Your task to perform on an android device: Open accessibility settings Image 0: 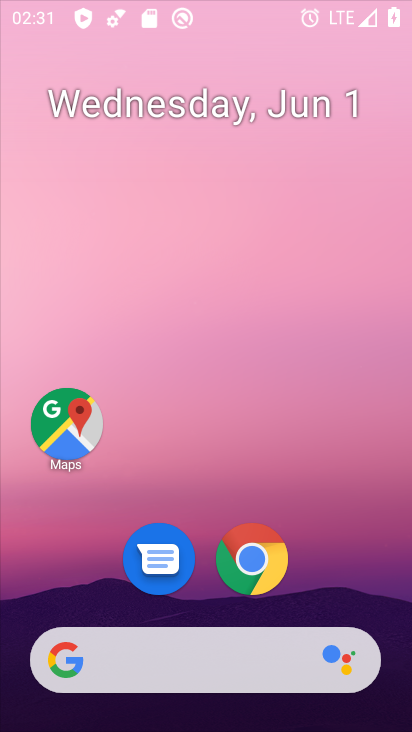
Step 0: press home button
Your task to perform on an android device: Open accessibility settings Image 1: 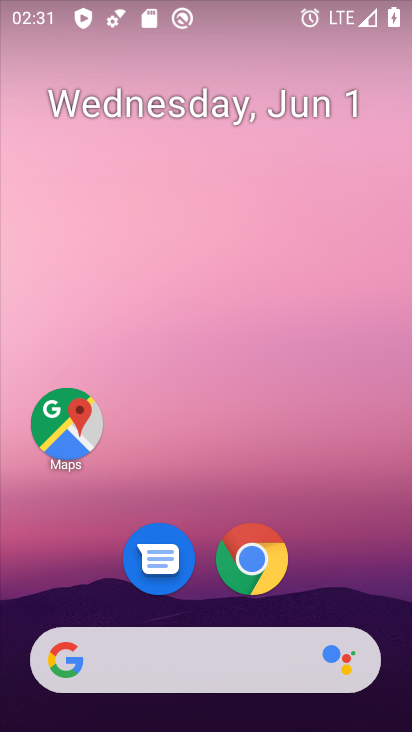
Step 1: drag from (315, 604) to (314, 188)
Your task to perform on an android device: Open accessibility settings Image 2: 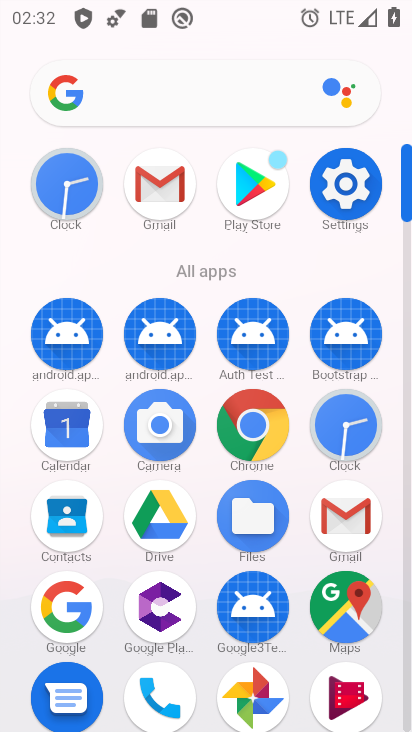
Step 2: click (348, 186)
Your task to perform on an android device: Open accessibility settings Image 3: 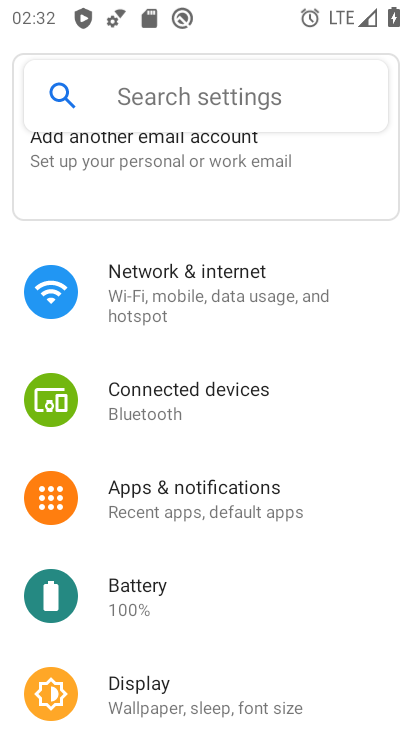
Step 3: drag from (228, 560) to (242, 175)
Your task to perform on an android device: Open accessibility settings Image 4: 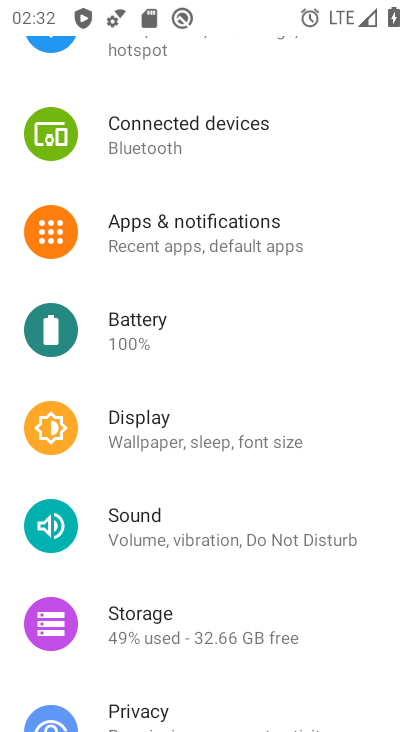
Step 4: drag from (275, 677) to (290, 197)
Your task to perform on an android device: Open accessibility settings Image 5: 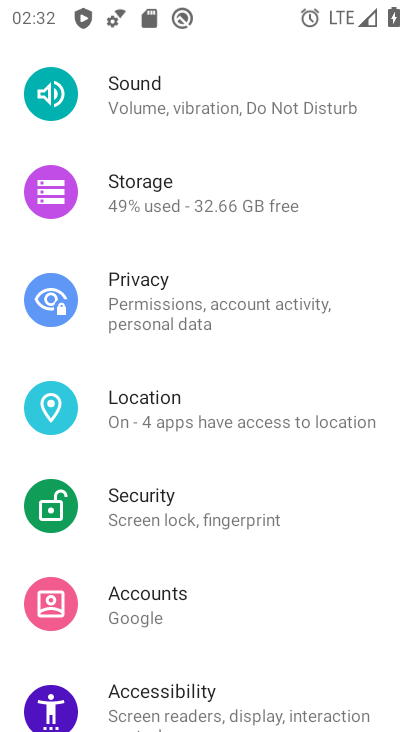
Step 5: click (160, 686)
Your task to perform on an android device: Open accessibility settings Image 6: 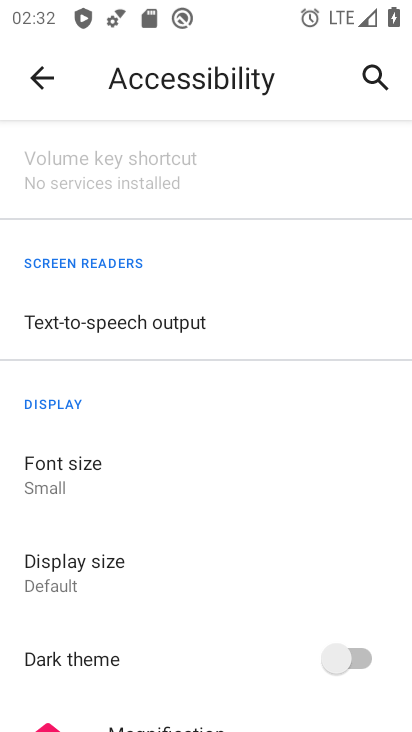
Step 6: task complete